Your task to perform on an android device: Go to network settings Image 0: 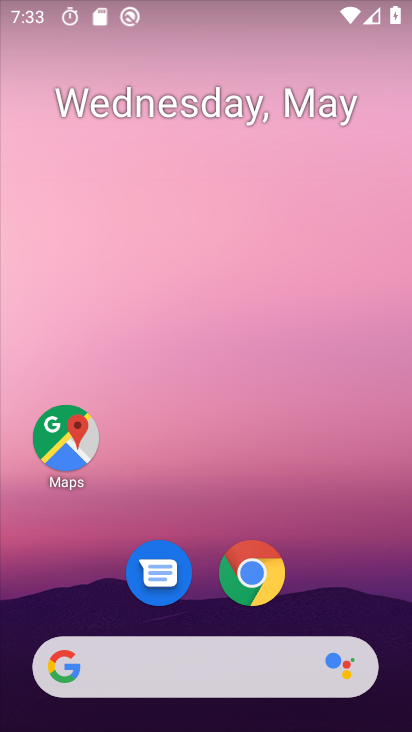
Step 0: drag from (329, 589) to (341, 44)
Your task to perform on an android device: Go to network settings Image 1: 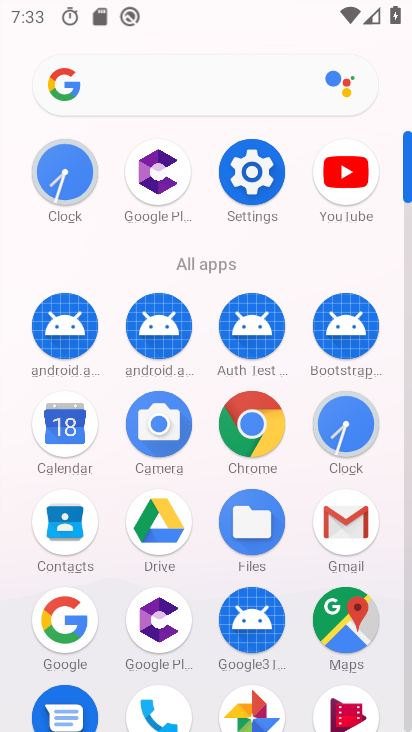
Step 1: click (247, 181)
Your task to perform on an android device: Go to network settings Image 2: 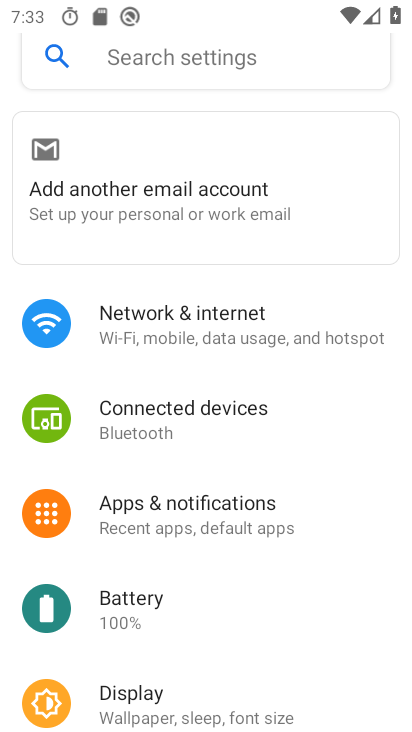
Step 2: click (206, 327)
Your task to perform on an android device: Go to network settings Image 3: 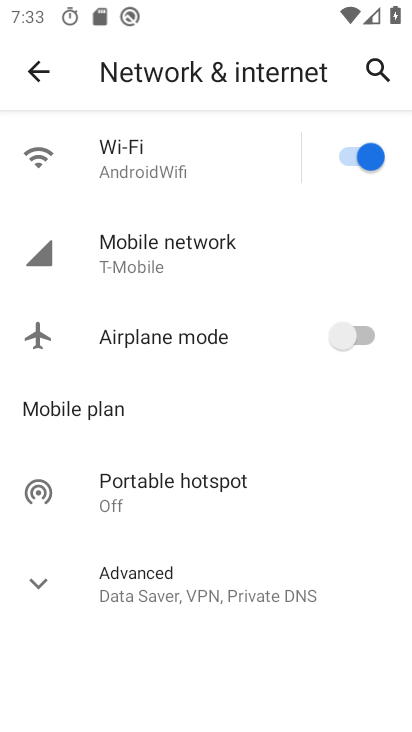
Step 3: click (146, 263)
Your task to perform on an android device: Go to network settings Image 4: 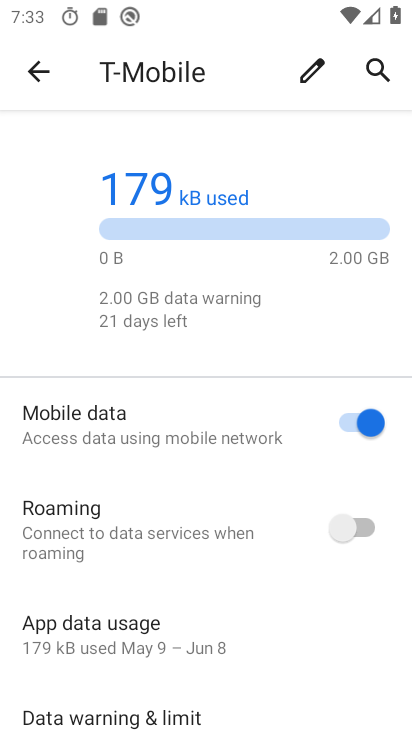
Step 4: task complete